Your task to perform on an android device: change the clock display to digital Image 0: 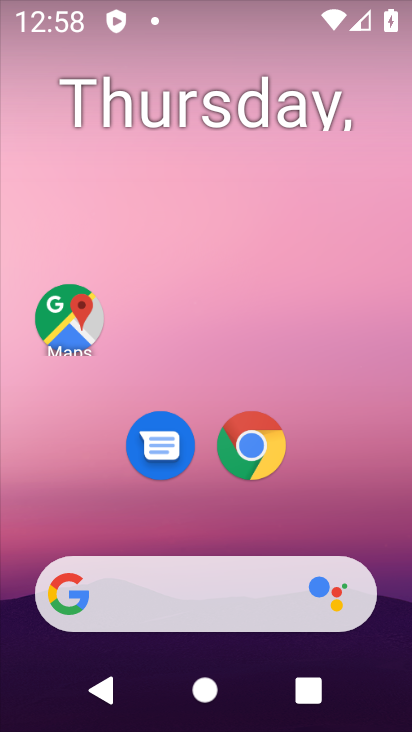
Step 0: drag from (176, 554) to (291, 56)
Your task to perform on an android device: change the clock display to digital Image 1: 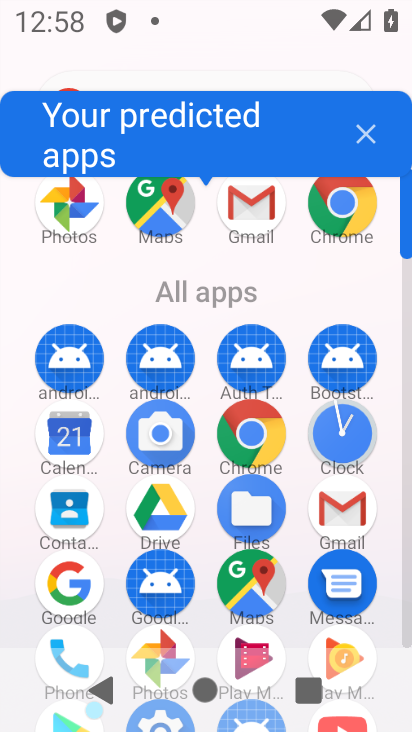
Step 1: click (338, 438)
Your task to perform on an android device: change the clock display to digital Image 2: 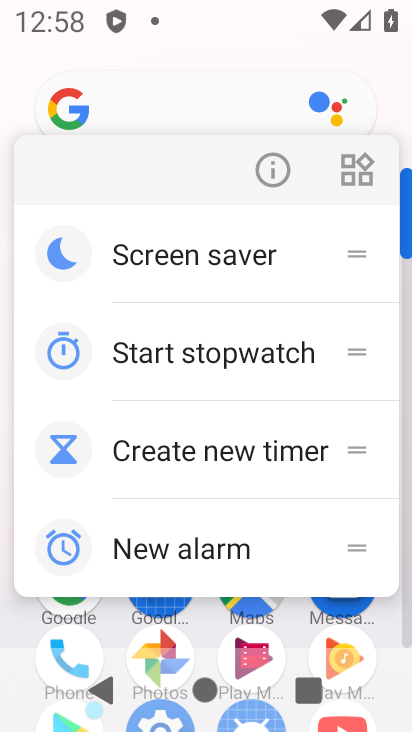
Step 2: press back button
Your task to perform on an android device: change the clock display to digital Image 3: 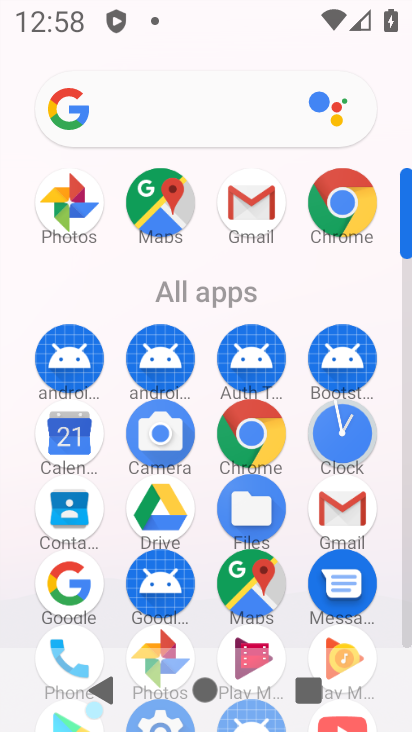
Step 3: click (337, 429)
Your task to perform on an android device: change the clock display to digital Image 4: 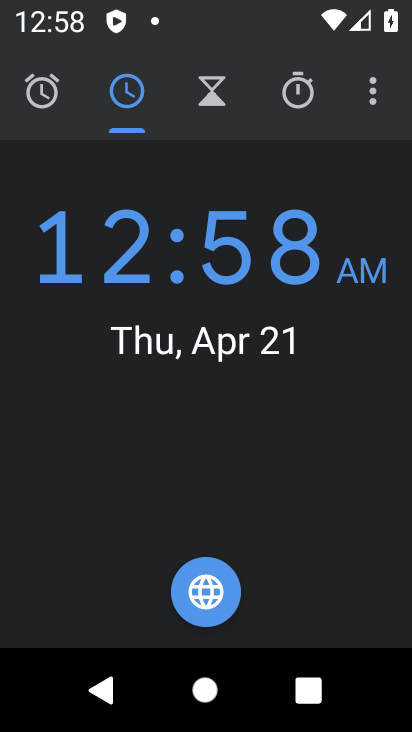
Step 4: click (377, 105)
Your task to perform on an android device: change the clock display to digital Image 5: 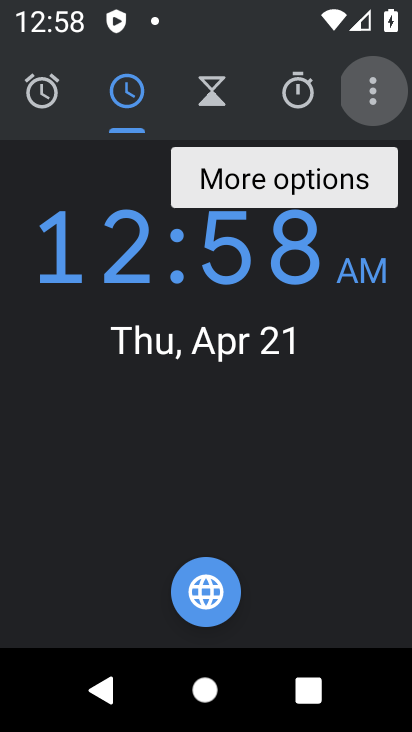
Step 5: click (377, 91)
Your task to perform on an android device: change the clock display to digital Image 6: 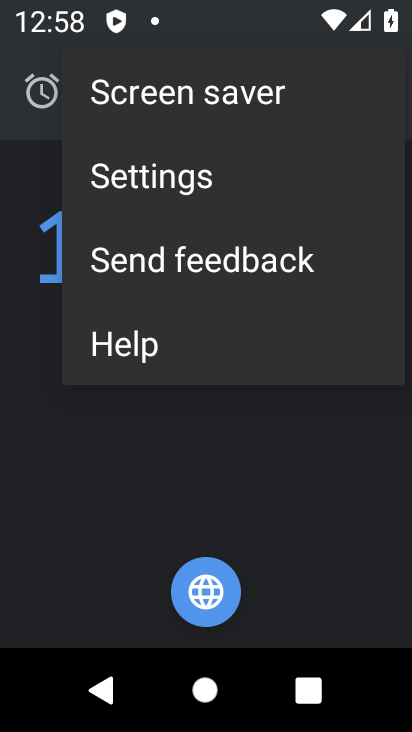
Step 6: click (291, 172)
Your task to perform on an android device: change the clock display to digital Image 7: 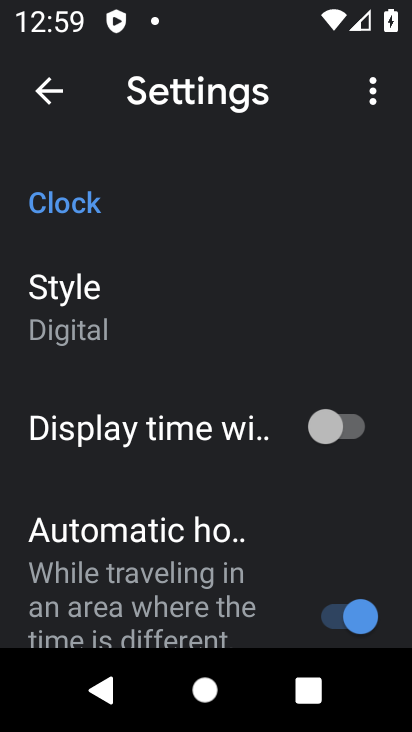
Step 7: task complete